Your task to perform on an android device: Open Android settings Image 0: 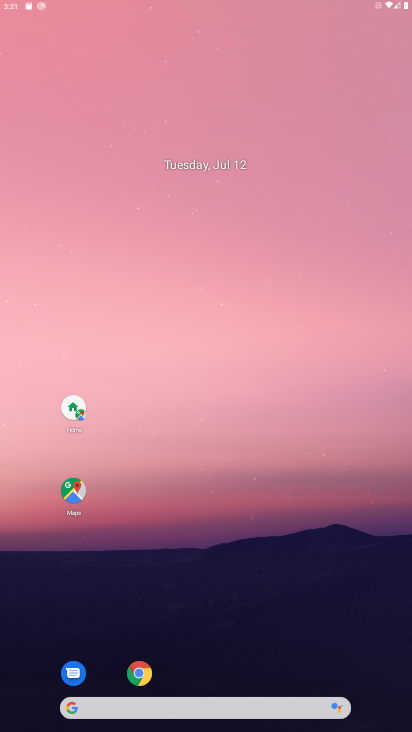
Step 0: drag from (250, 642) to (255, 307)
Your task to perform on an android device: Open Android settings Image 1: 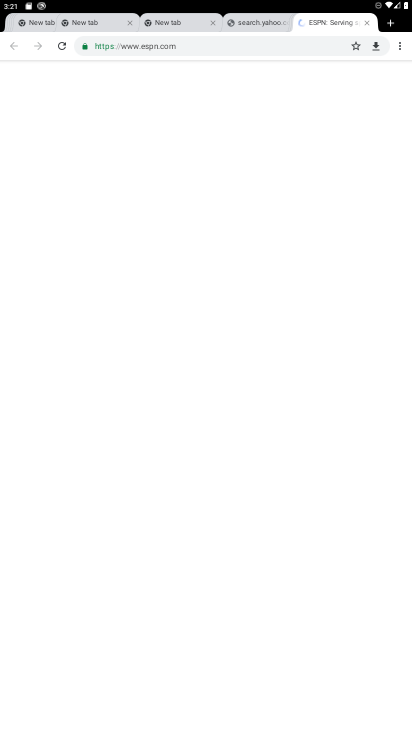
Step 1: press home button
Your task to perform on an android device: Open Android settings Image 2: 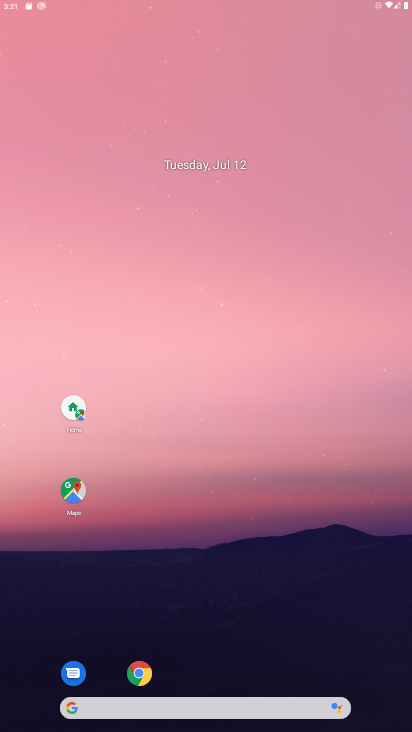
Step 2: drag from (257, 671) to (220, 342)
Your task to perform on an android device: Open Android settings Image 3: 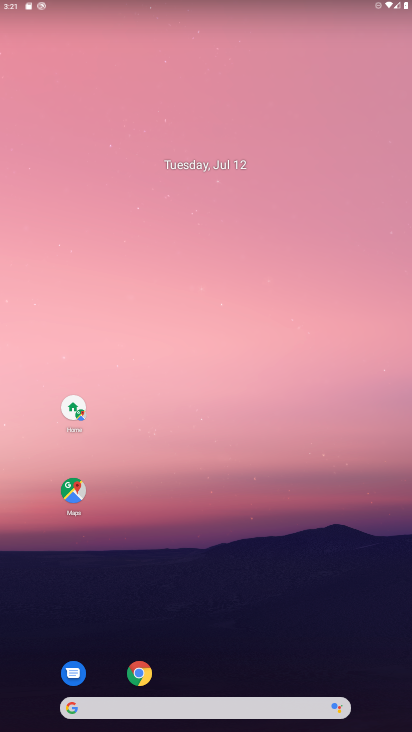
Step 3: drag from (280, 640) to (254, 341)
Your task to perform on an android device: Open Android settings Image 4: 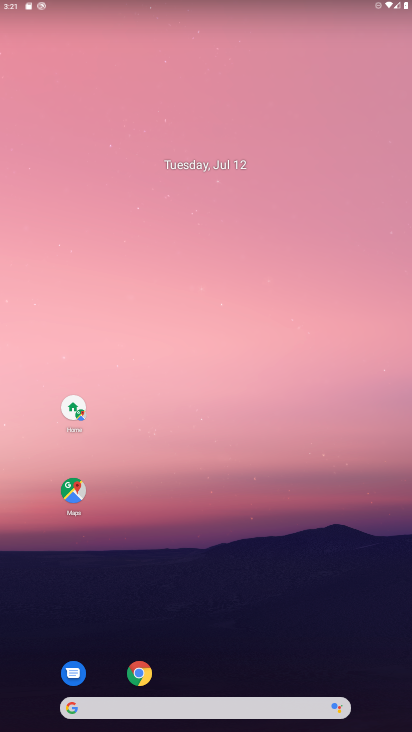
Step 4: drag from (229, 682) to (239, 407)
Your task to perform on an android device: Open Android settings Image 5: 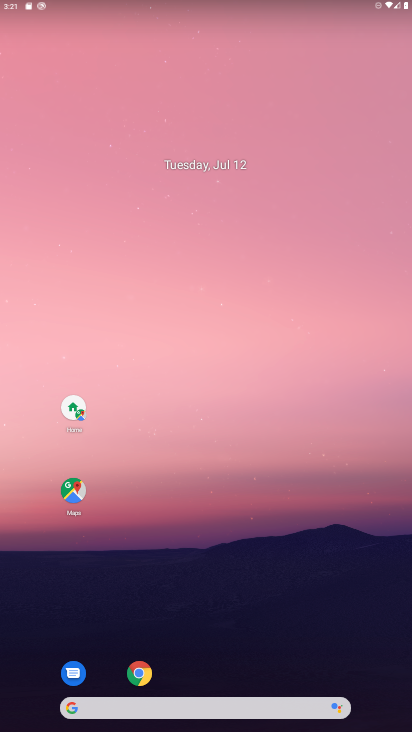
Step 5: drag from (253, 655) to (296, 218)
Your task to perform on an android device: Open Android settings Image 6: 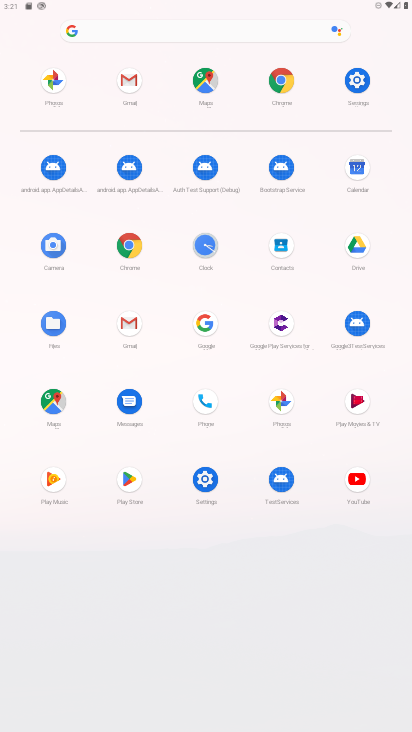
Step 6: click (348, 81)
Your task to perform on an android device: Open Android settings Image 7: 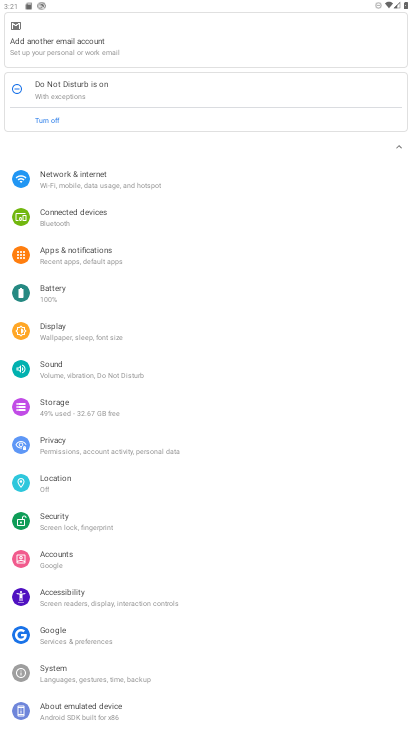
Step 7: task complete